Your task to perform on an android device: open chrome privacy settings Image 0: 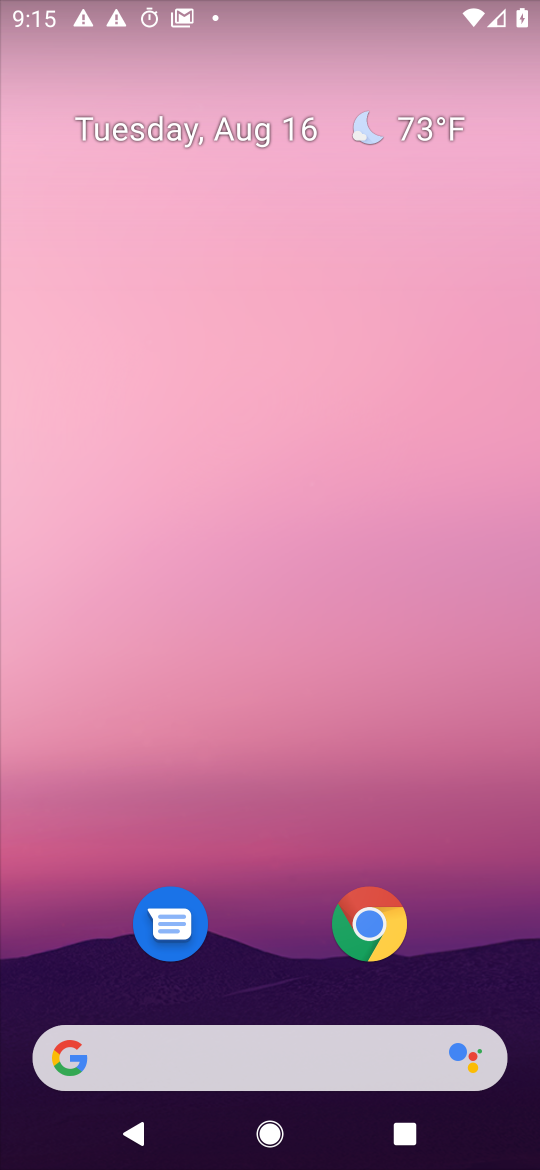
Step 0: click (337, 912)
Your task to perform on an android device: open chrome privacy settings Image 1: 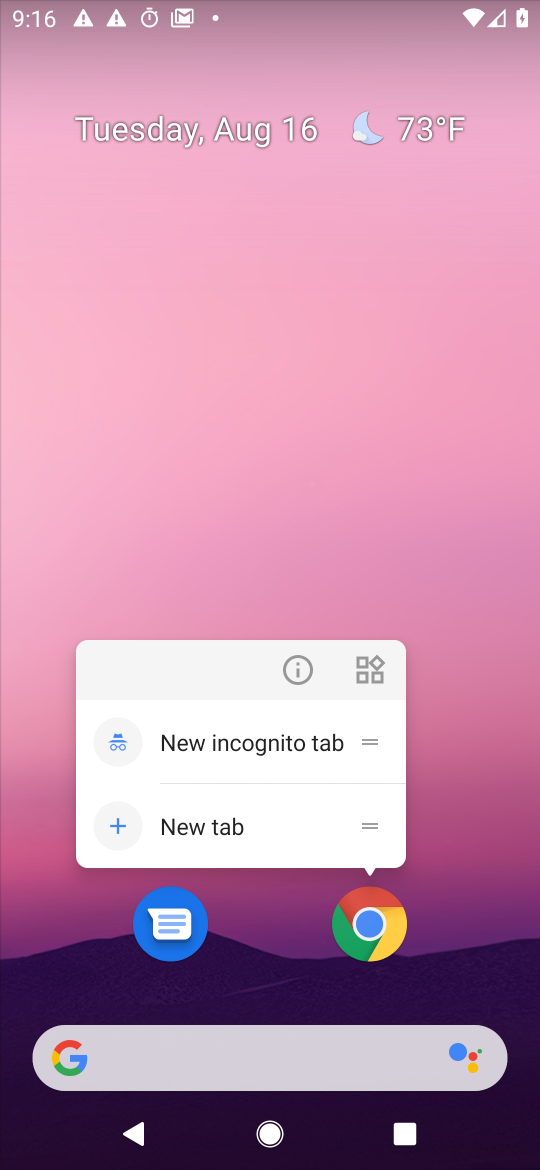
Step 1: click (380, 940)
Your task to perform on an android device: open chrome privacy settings Image 2: 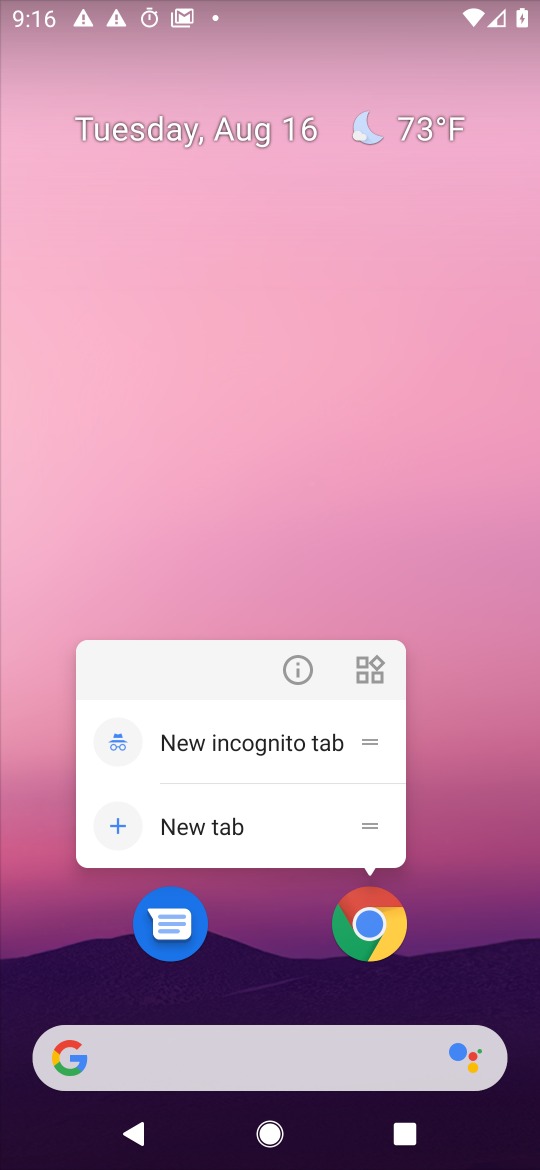
Step 2: click (353, 912)
Your task to perform on an android device: open chrome privacy settings Image 3: 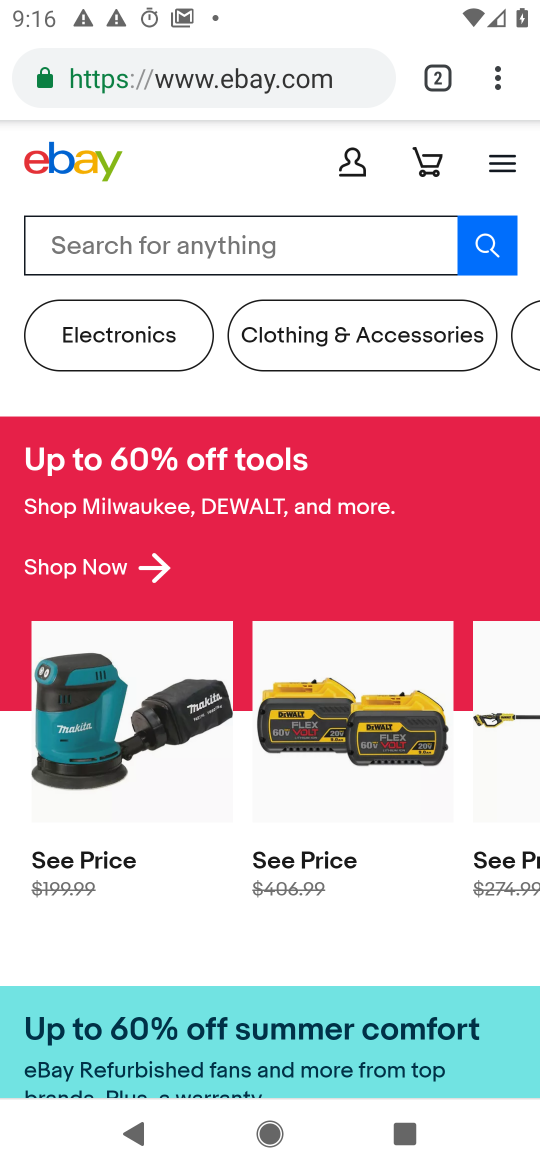
Step 3: drag from (497, 73) to (257, 931)
Your task to perform on an android device: open chrome privacy settings Image 4: 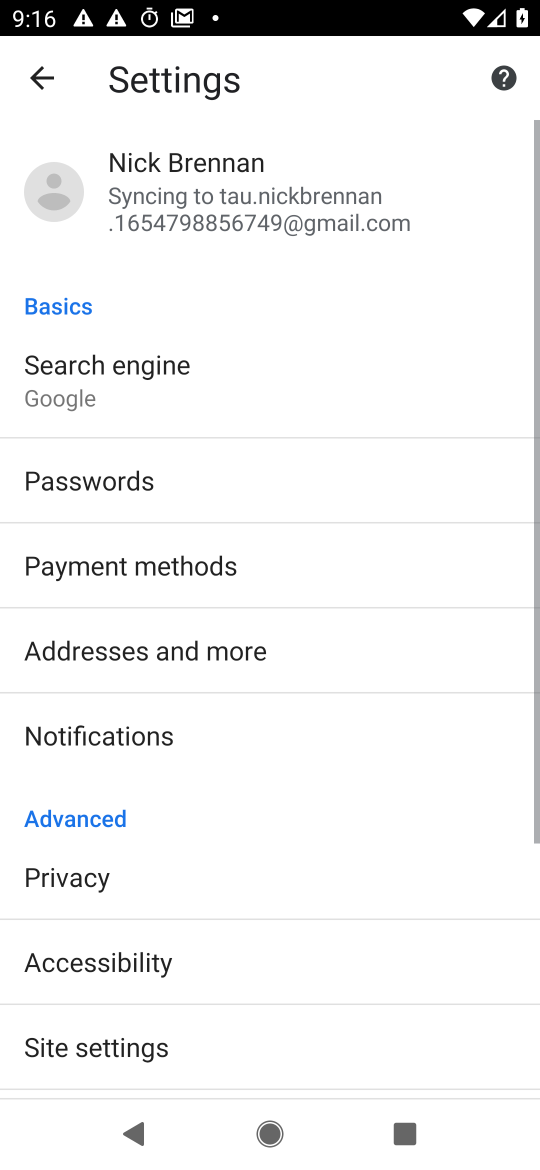
Step 4: drag from (184, 945) to (281, 366)
Your task to perform on an android device: open chrome privacy settings Image 5: 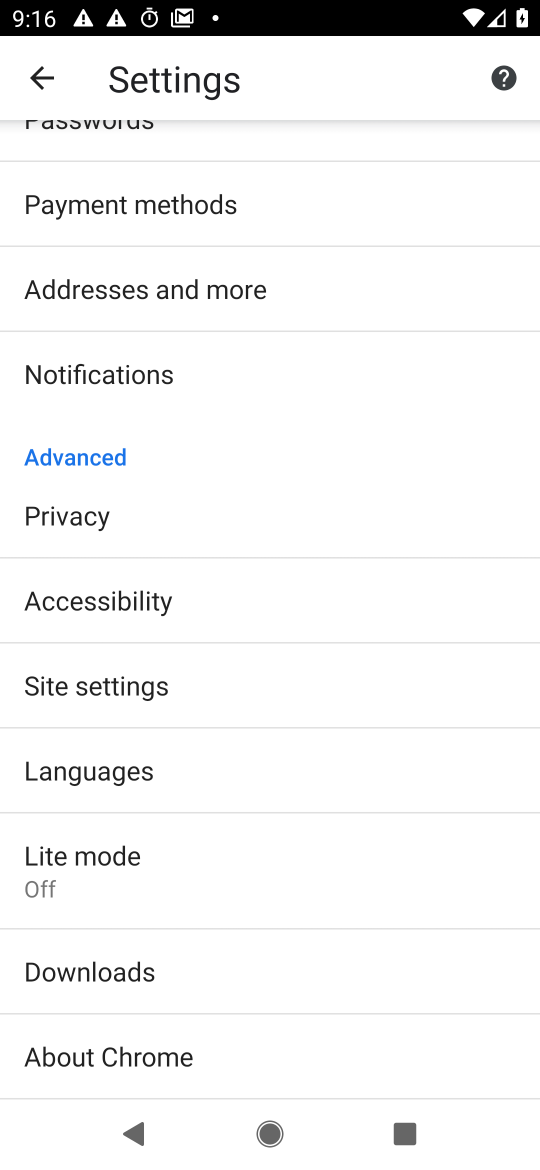
Step 5: click (104, 516)
Your task to perform on an android device: open chrome privacy settings Image 6: 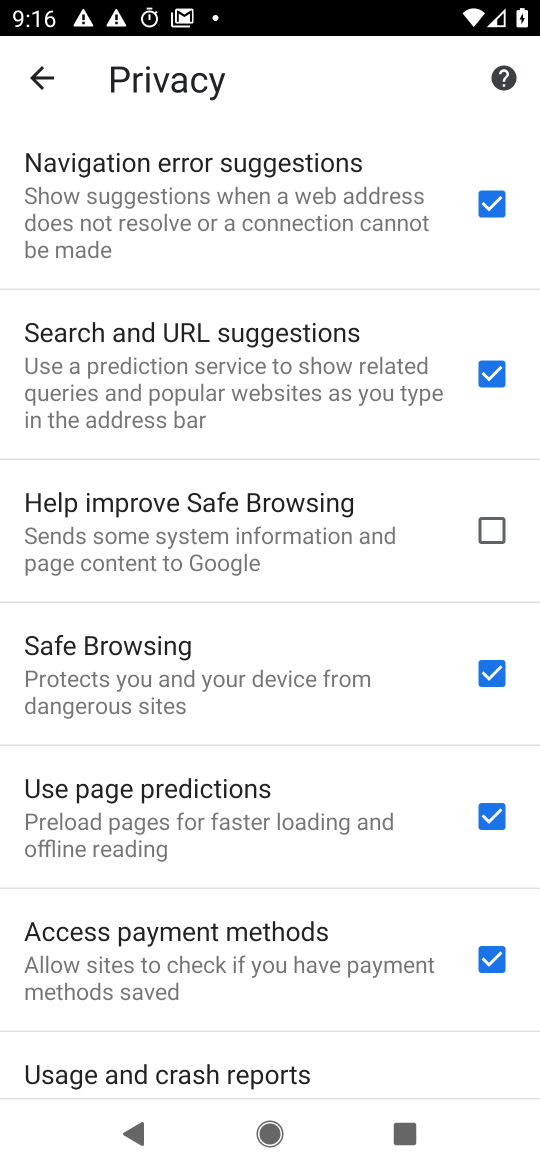
Step 6: task complete